Your task to perform on an android device: open chrome and create a bookmark for the current page Image 0: 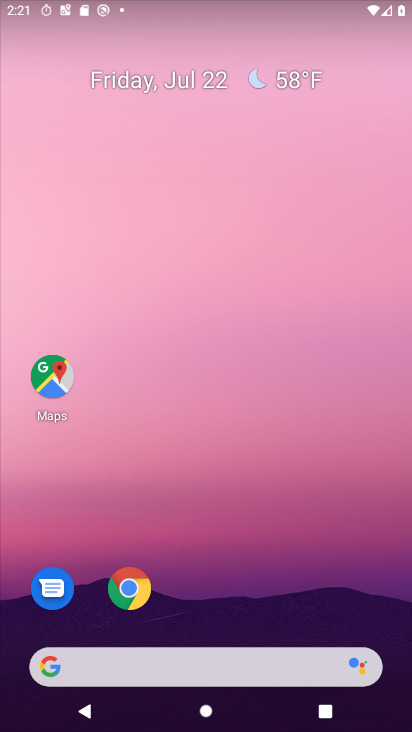
Step 0: press home button
Your task to perform on an android device: open chrome and create a bookmark for the current page Image 1: 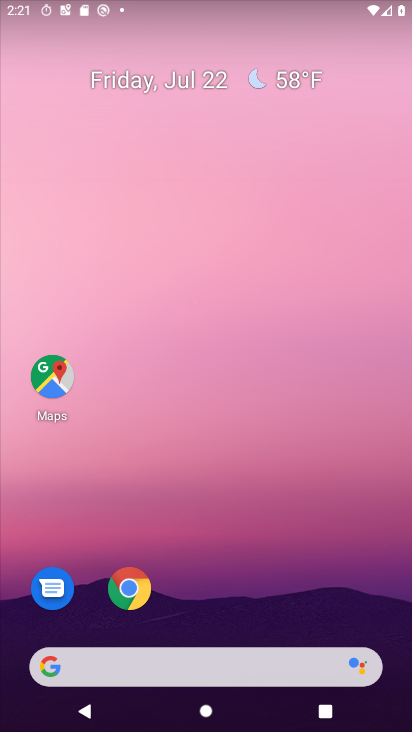
Step 1: click (132, 593)
Your task to perform on an android device: open chrome and create a bookmark for the current page Image 2: 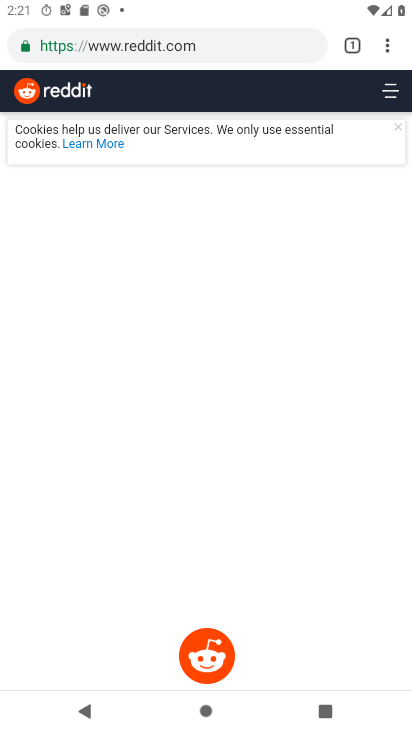
Step 2: drag from (387, 50) to (232, 179)
Your task to perform on an android device: open chrome and create a bookmark for the current page Image 3: 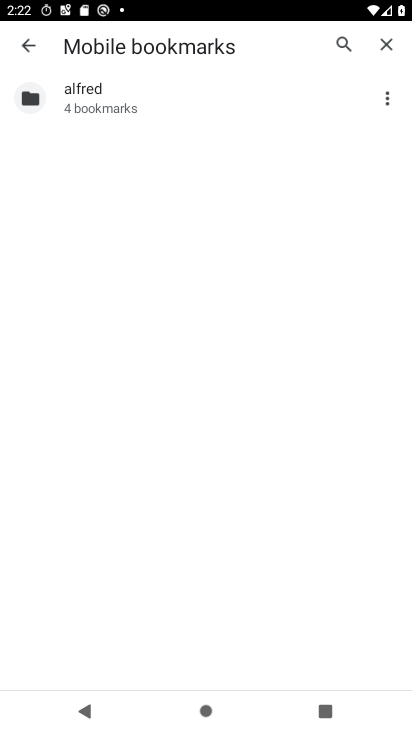
Step 3: click (27, 34)
Your task to perform on an android device: open chrome and create a bookmark for the current page Image 4: 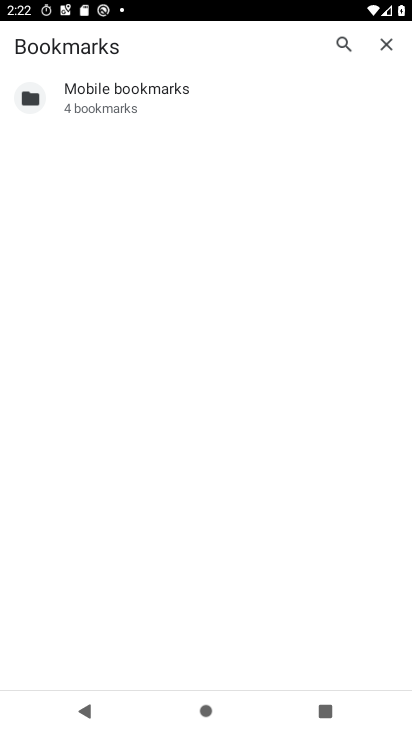
Step 4: click (382, 32)
Your task to perform on an android device: open chrome and create a bookmark for the current page Image 5: 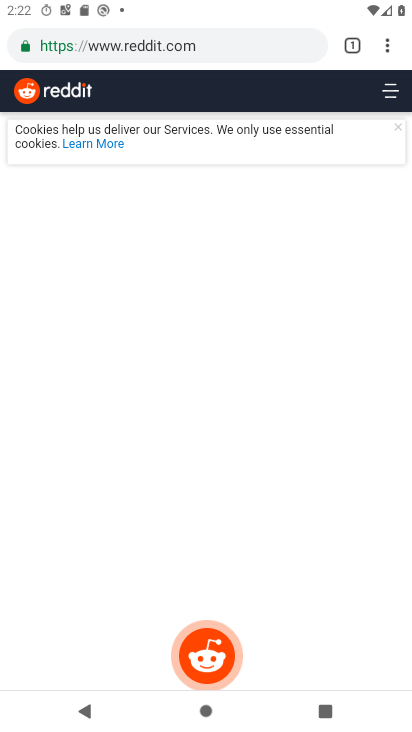
Step 5: task complete